Your task to perform on an android device: check google app version Image 0: 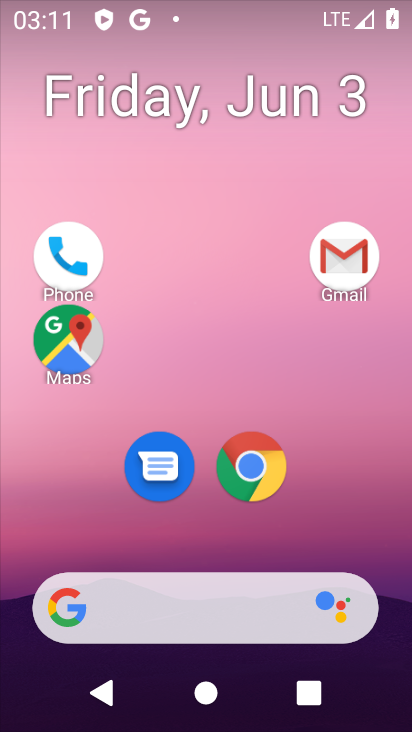
Step 0: click (69, 629)
Your task to perform on an android device: check google app version Image 1: 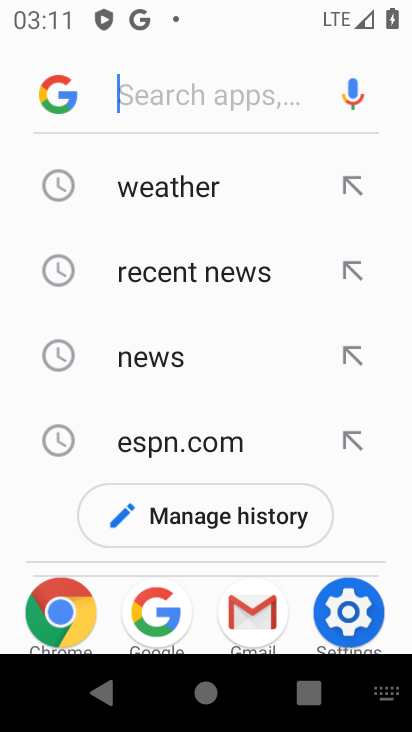
Step 1: click (58, 109)
Your task to perform on an android device: check google app version Image 2: 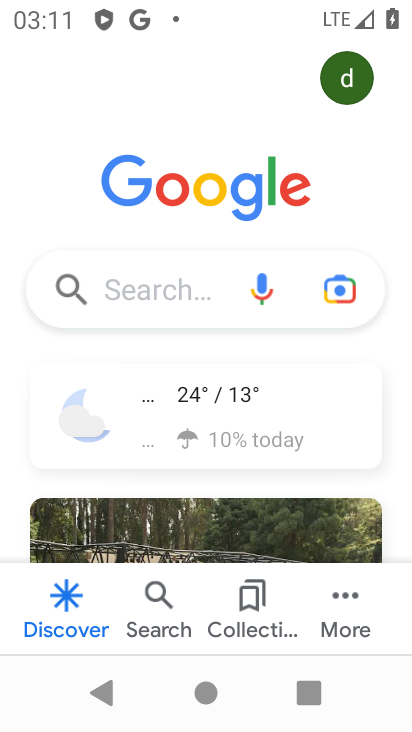
Step 2: click (344, 624)
Your task to perform on an android device: check google app version Image 3: 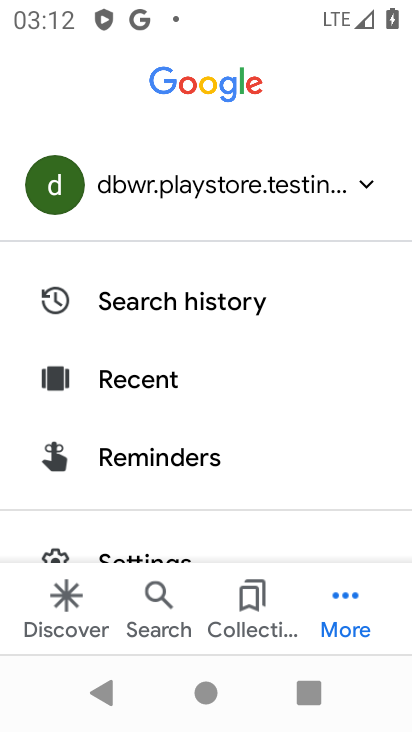
Step 3: drag from (216, 519) to (197, 258)
Your task to perform on an android device: check google app version Image 4: 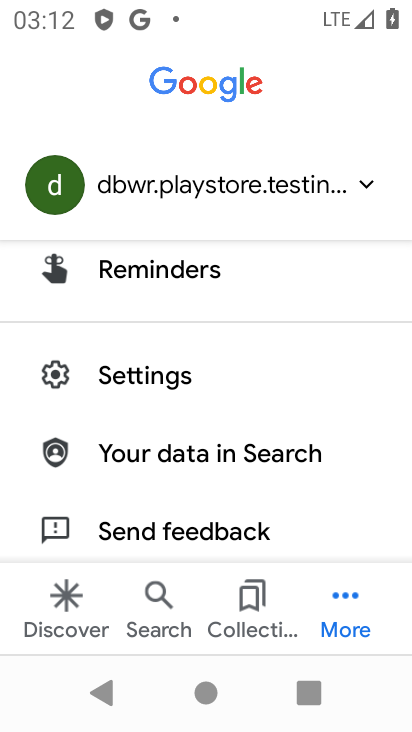
Step 4: click (127, 383)
Your task to perform on an android device: check google app version Image 5: 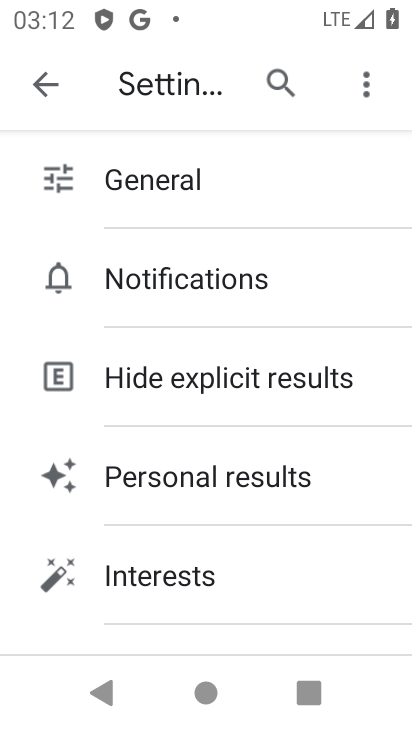
Step 5: drag from (189, 557) to (197, 304)
Your task to perform on an android device: check google app version Image 6: 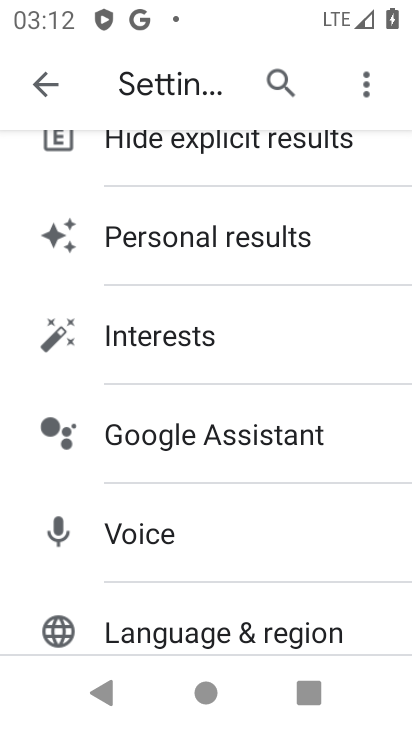
Step 6: drag from (201, 546) to (197, 366)
Your task to perform on an android device: check google app version Image 7: 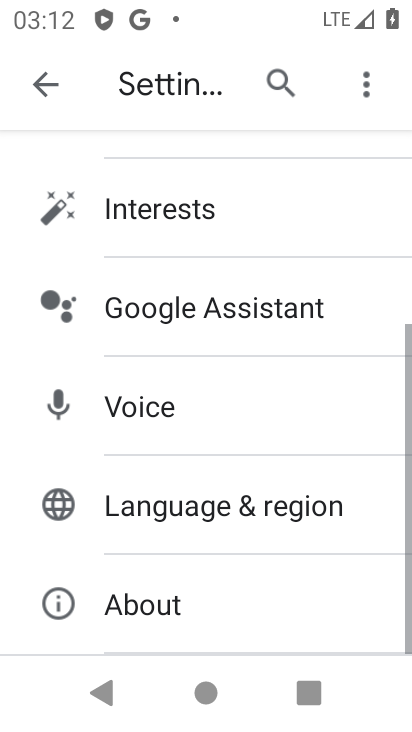
Step 7: click (162, 598)
Your task to perform on an android device: check google app version Image 8: 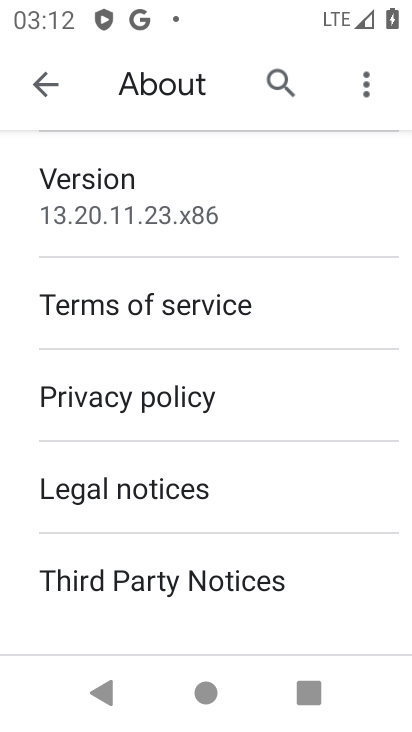
Step 8: task complete